Your task to perform on an android device: Open Yahoo.com Image 0: 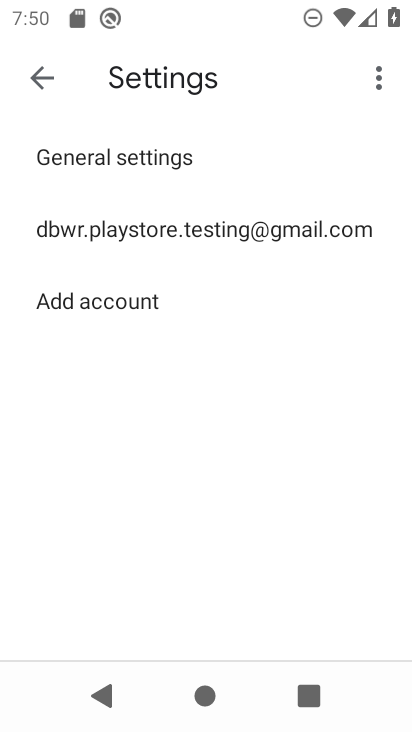
Step 0: press home button
Your task to perform on an android device: Open Yahoo.com Image 1: 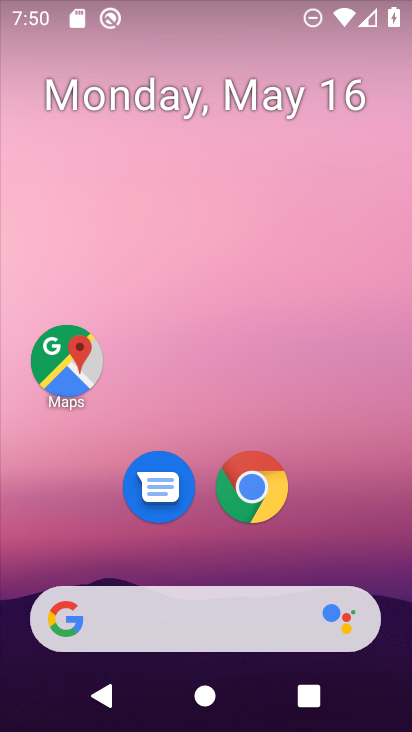
Step 1: click (260, 620)
Your task to perform on an android device: Open Yahoo.com Image 2: 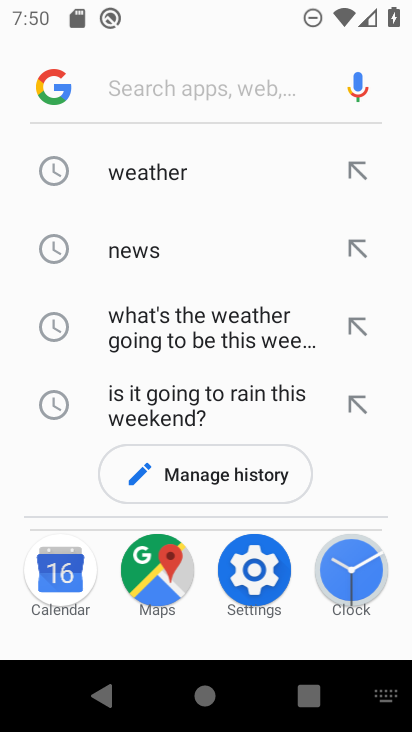
Step 2: type "yahoo.com"
Your task to perform on an android device: Open Yahoo.com Image 3: 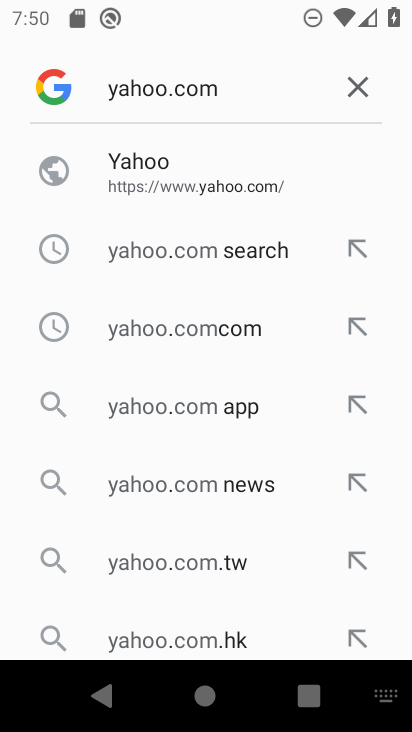
Step 3: click (143, 161)
Your task to perform on an android device: Open Yahoo.com Image 4: 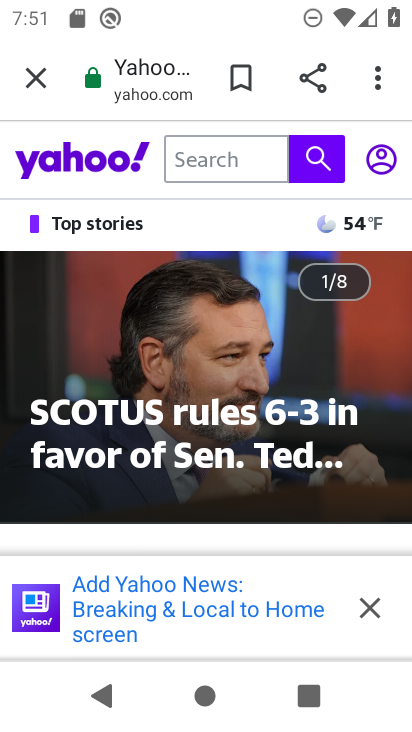
Step 4: task complete